Your task to perform on an android device: Go to display settings Image 0: 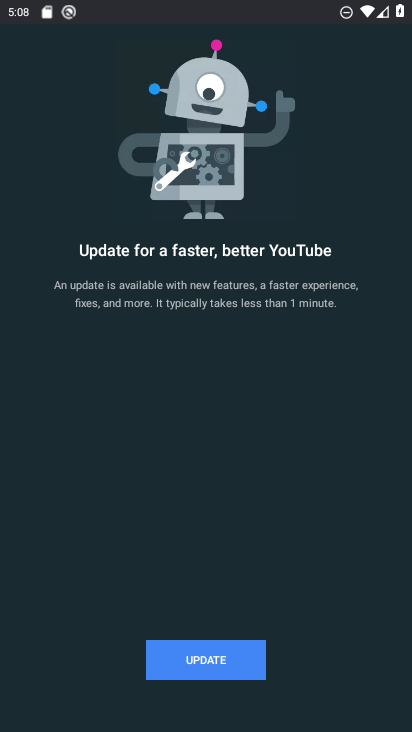
Step 0: press home button
Your task to perform on an android device: Go to display settings Image 1: 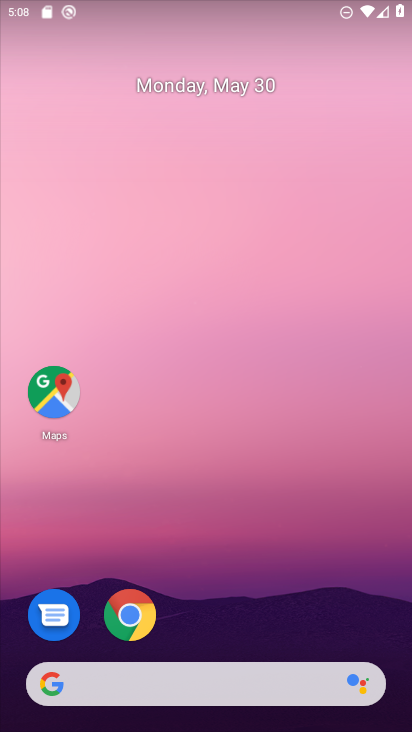
Step 1: drag from (195, 621) to (231, 69)
Your task to perform on an android device: Go to display settings Image 2: 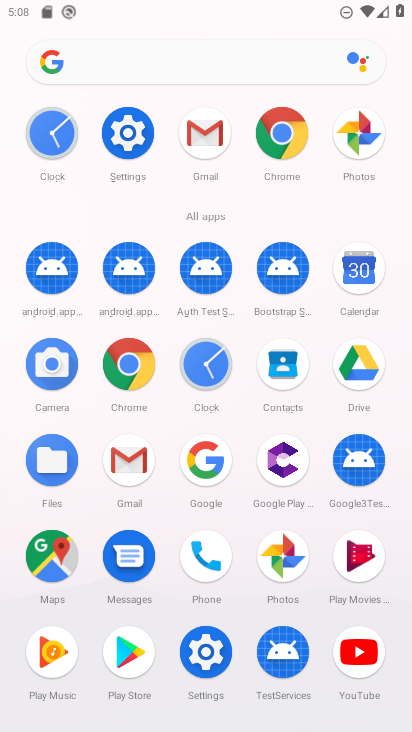
Step 2: click (121, 153)
Your task to perform on an android device: Go to display settings Image 3: 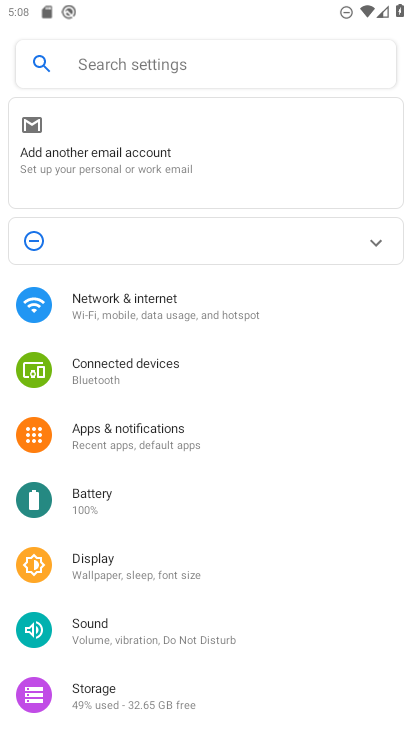
Step 3: click (106, 565)
Your task to perform on an android device: Go to display settings Image 4: 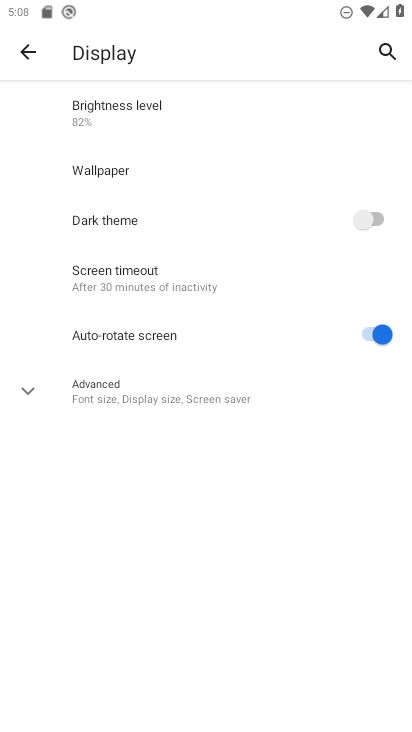
Step 4: task complete